Your task to perform on an android device: toggle airplane mode Image 0: 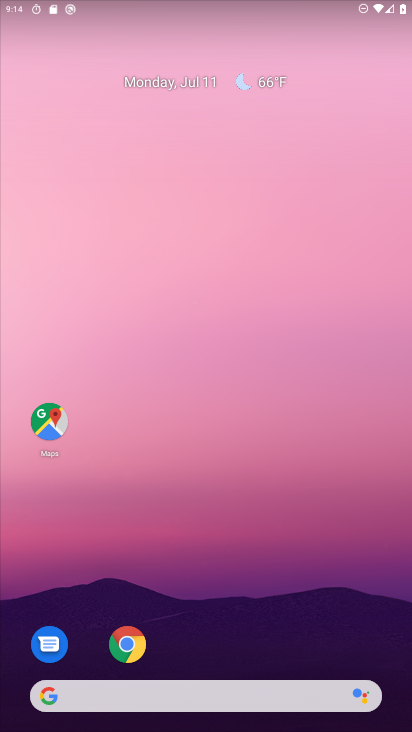
Step 0: press home button
Your task to perform on an android device: toggle airplane mode Image 1: 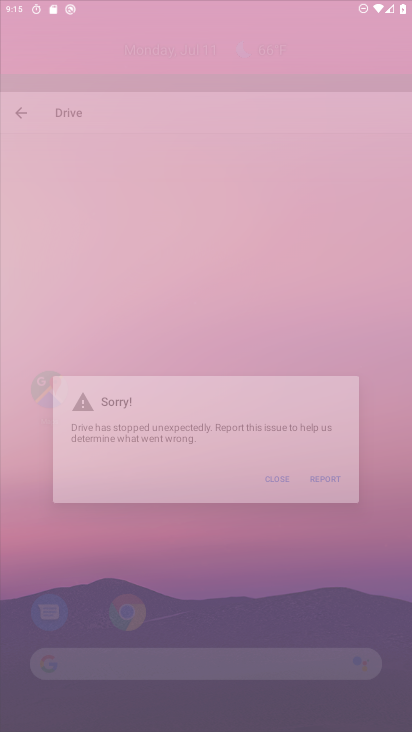
Step 1: drag from (268, 550) to (257, 149)
Your task to perform on an android device: toggle airplane mode Image 2: 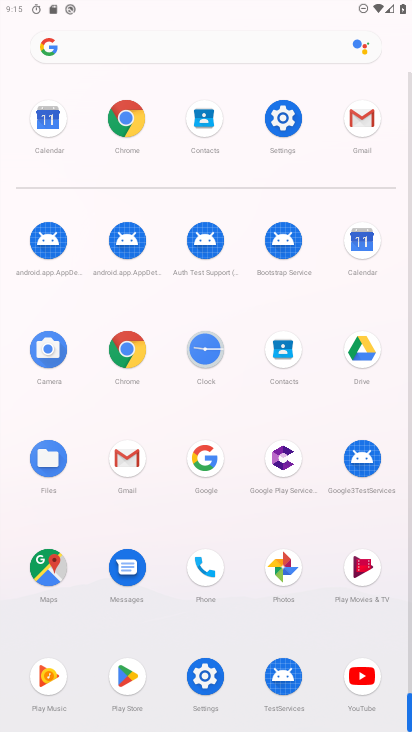
Step 2: click (295, 119)
Your task to perform on an android device: toggle airplane mode Image 3: 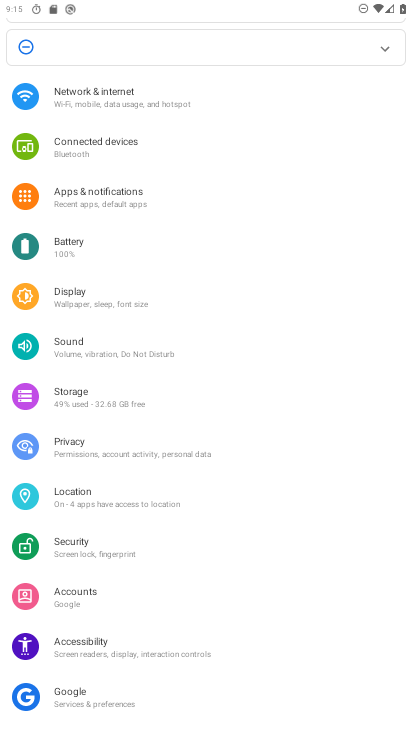
Step 3: click (208, 66)
Your task to perform on an android device: toggle airplane mode Image 4: 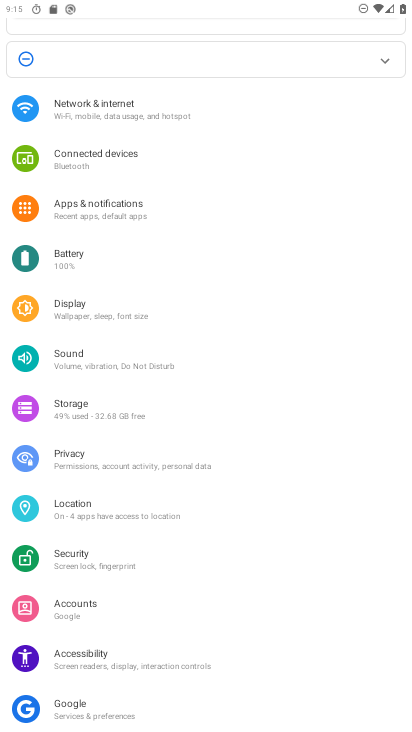
Step 4: click (95, 107)
Your task to perform on an android device: toggle airplane mode Image 5: 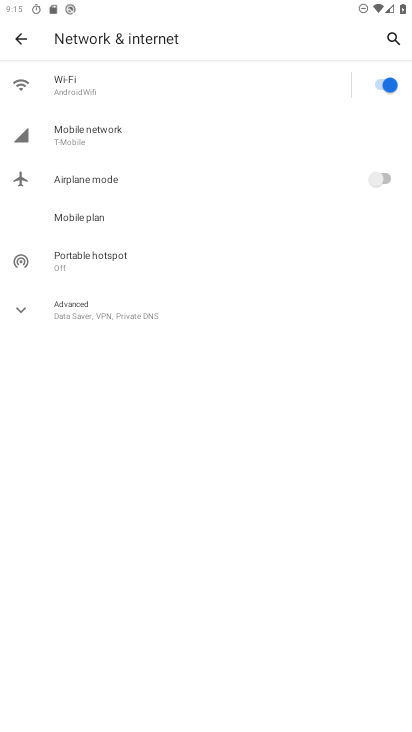
Step 5: click (373, 176)
Your task to perform on an android device: toggle airplane mode Image 6: 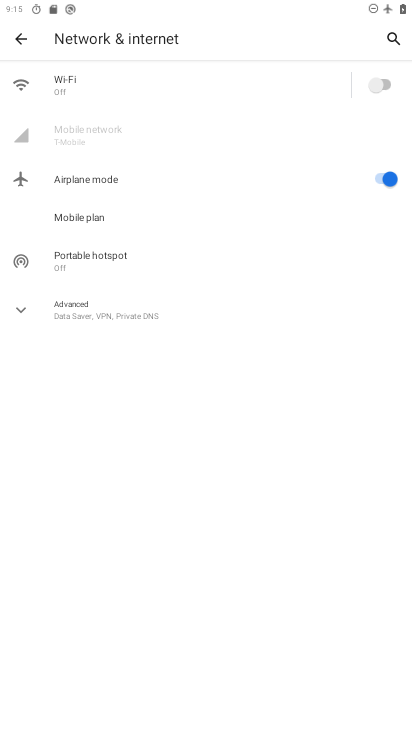
Step 6: task complete